Your task to perform on an android device: change notification settings in the gmail app Image 0: 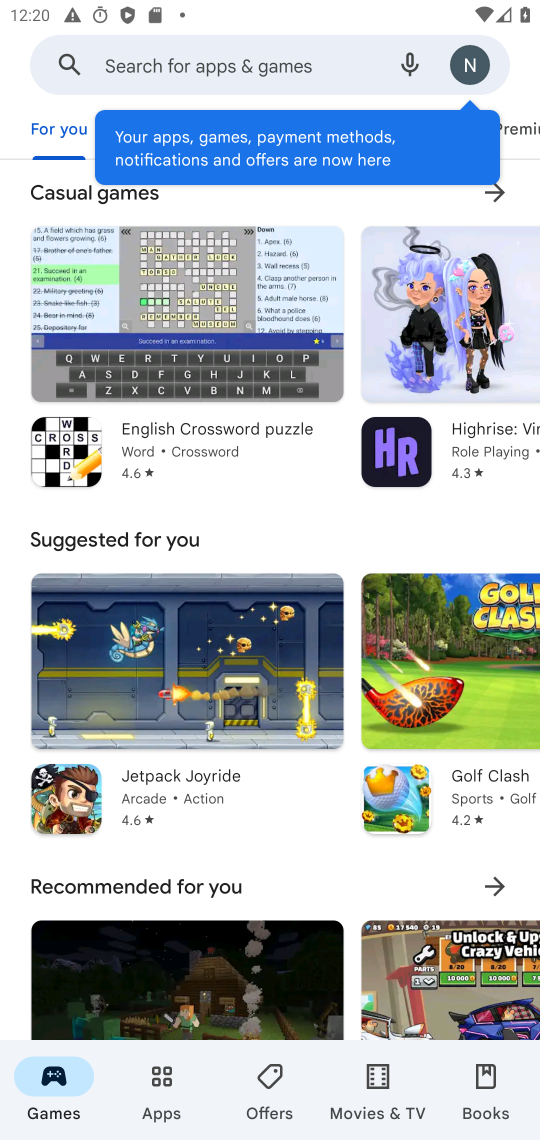
Step 0: press home button
Your task to perform on an android device: change notification settings in the gmail app Image 1: 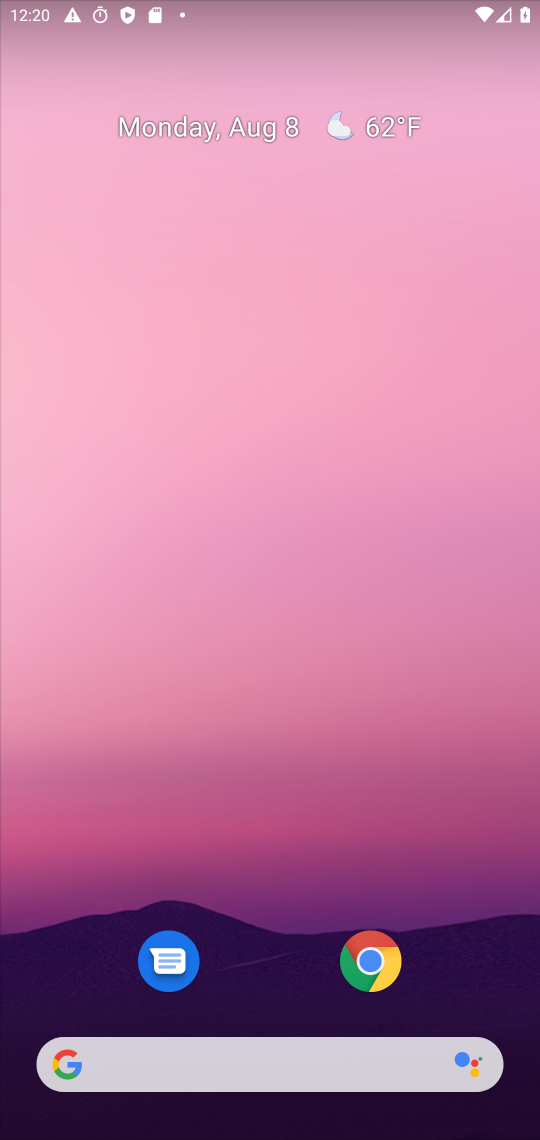
Step 1: drag from (337, 1051) to (107, 50)
Your task to perform on an android device: change notification settings in the gmail app Image 2: 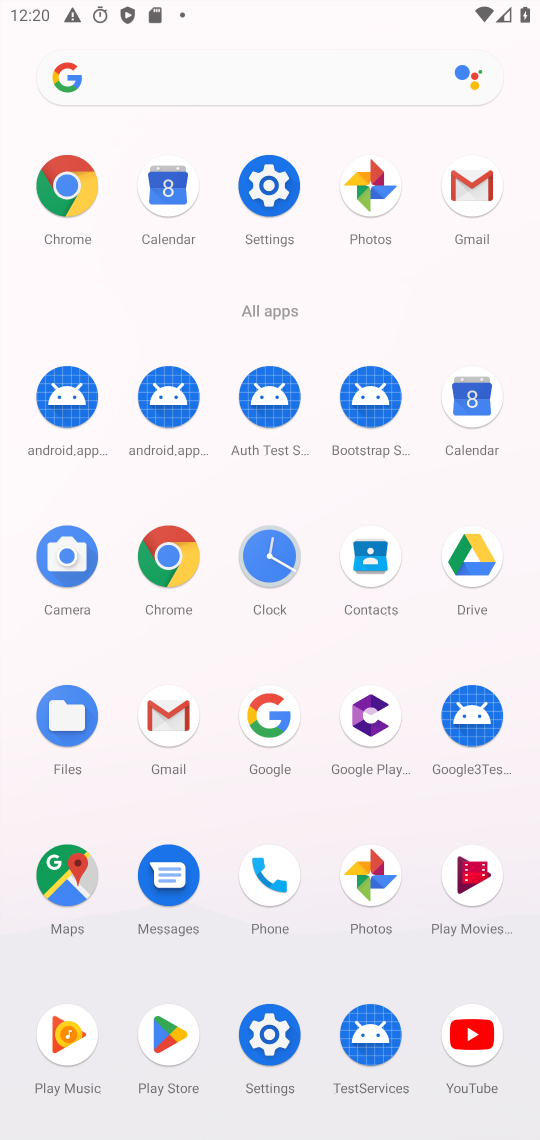
Step 2: click (175, 713)
Your task to perform on an android device: change notification settings in the gmail app Image 3: 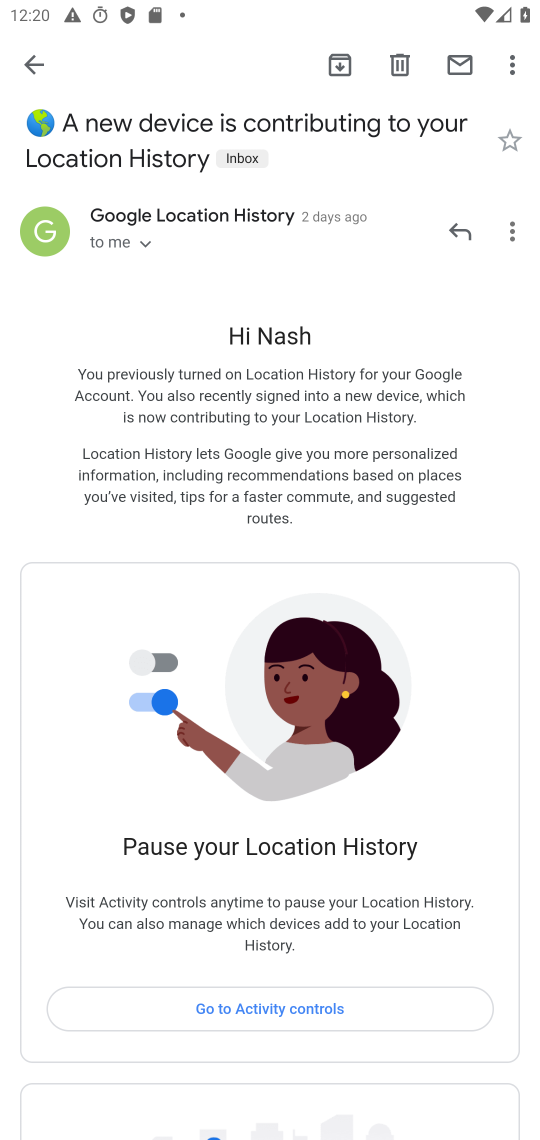
Step 3: press back button
Your task to perform on an android device: change notification settings in the gmail app Image 4: 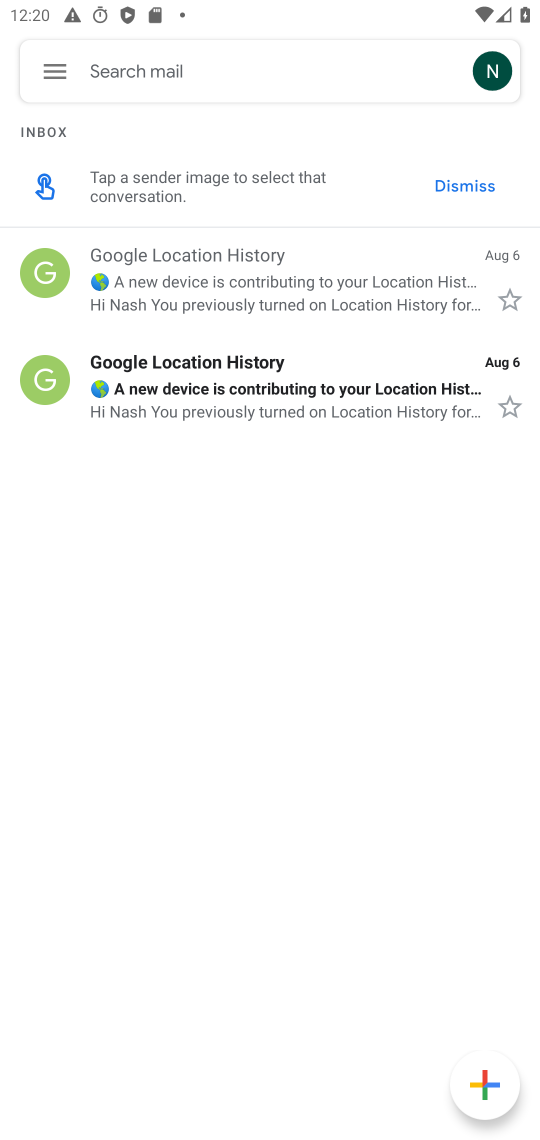
Step 4: click (67, 62)
Your task to perform on an android device: change notification settings in the gmail app Image 5: 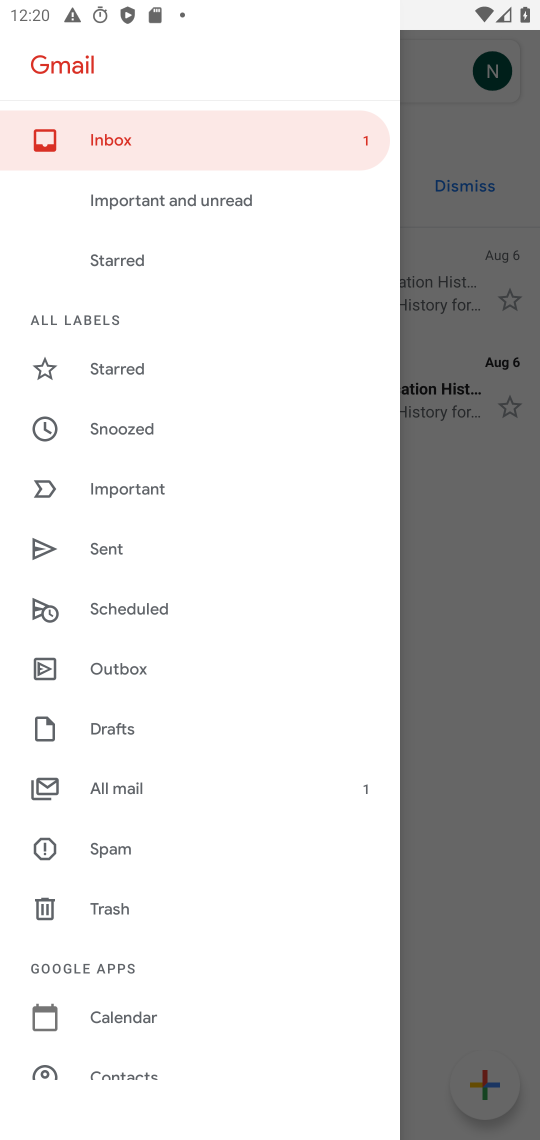
Step 5: drag from (303, 1062) to (204, 221)
Your task to perform on an android device: change notification settings in the gmail app Image 6: 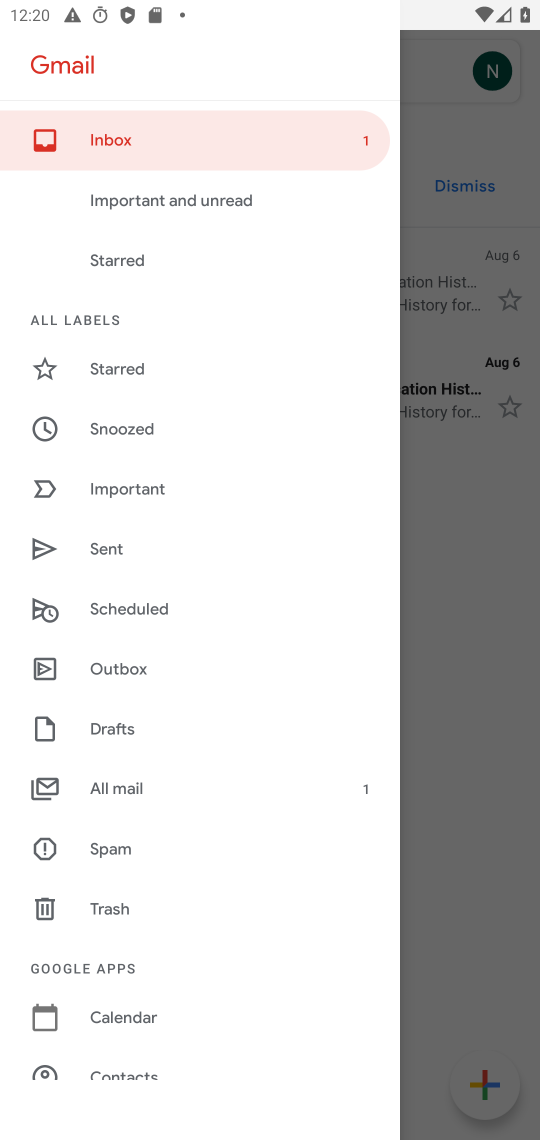
Step 6: drag from (288, 1074) to (205, 88)
Your task to perform on an android device: change notification settings in the gmail app Image 7: 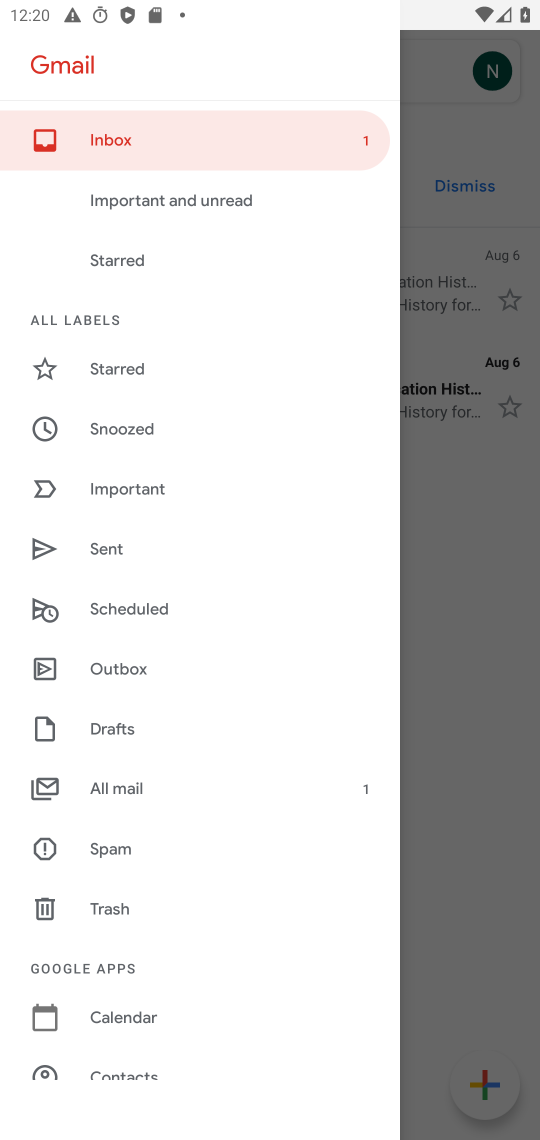
Step 7: drag from (279, 973) to (212, 281)
Your task to perform on an android device: change notification settings in the gmail app Image 8: 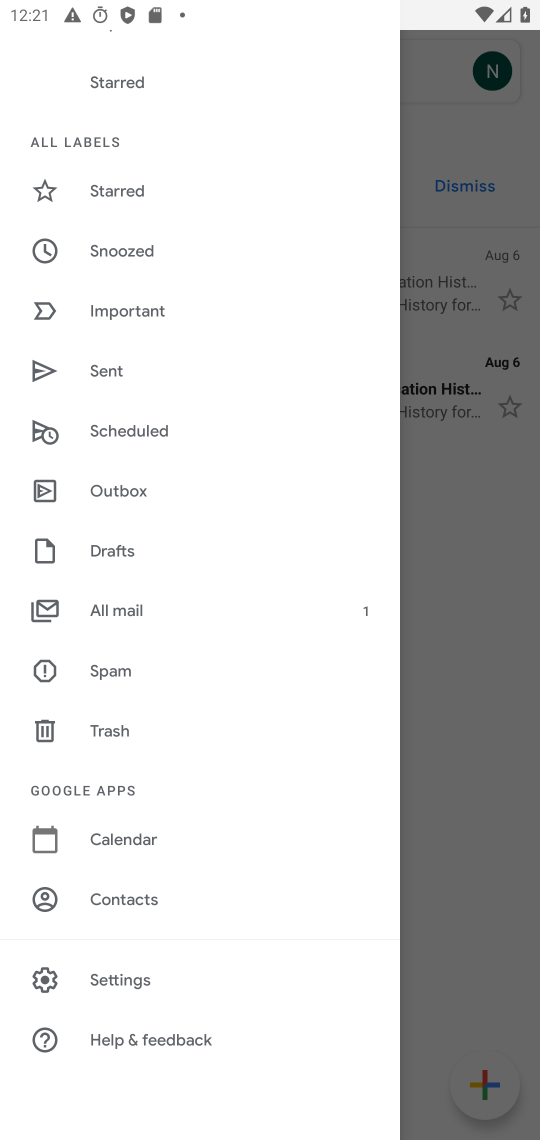
Step 8: click (111, 980)
Your task to perform on an android device: change notification settings in the gmail app Image 9: 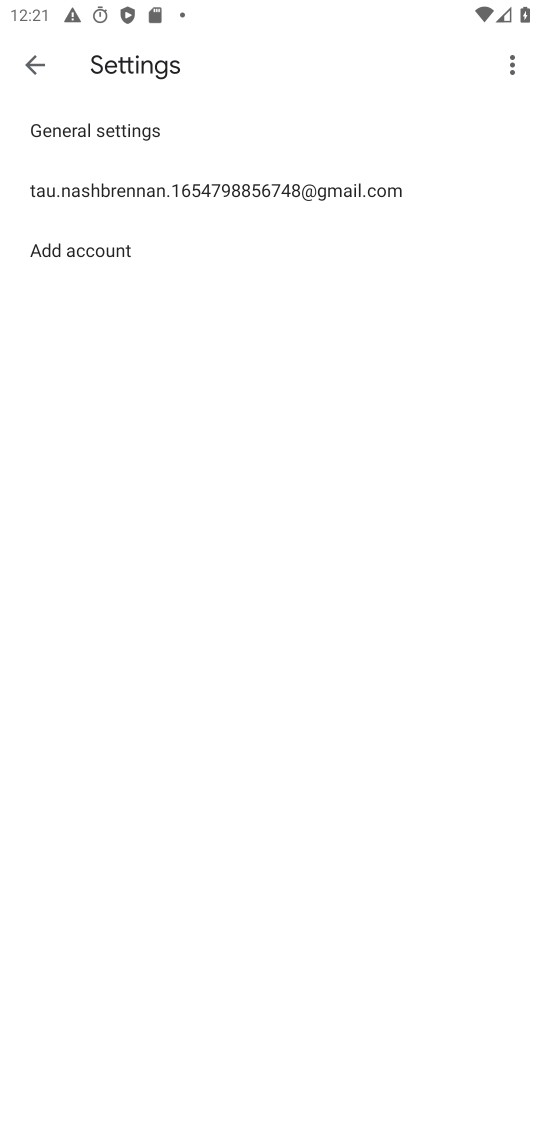
Step 9: click (156, 204)
Your task to perform on an android device: change notification settings in the gmail app Image 10: 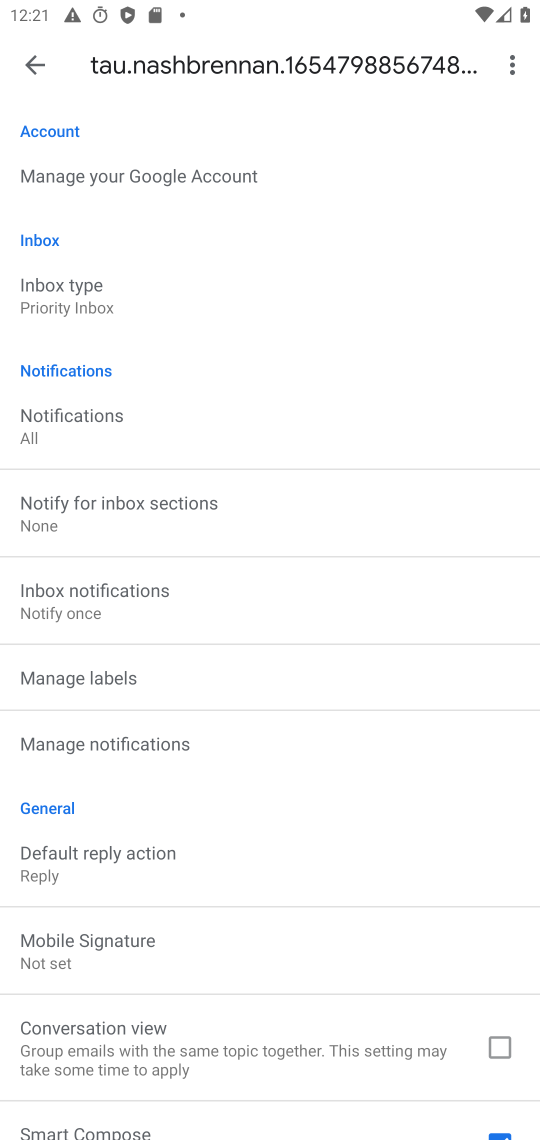
Step 10: click (78, 736)
Your task to perform on an android device: change notification settings in the gmail app Image 11: 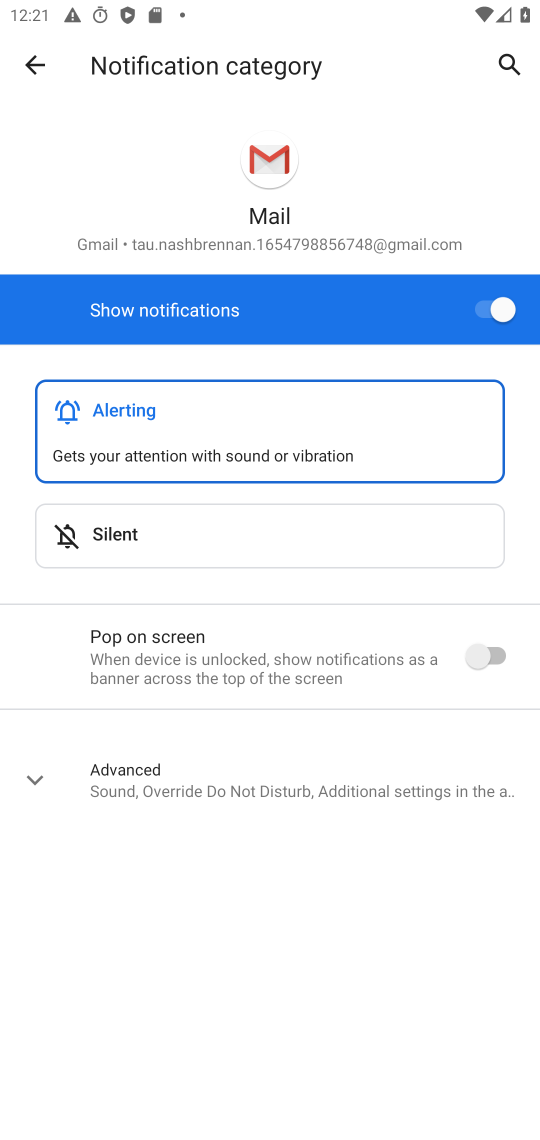
Step 11: click (480, 307)
Your task to perform on an android device: change notification settings in the gmail app Image 12: 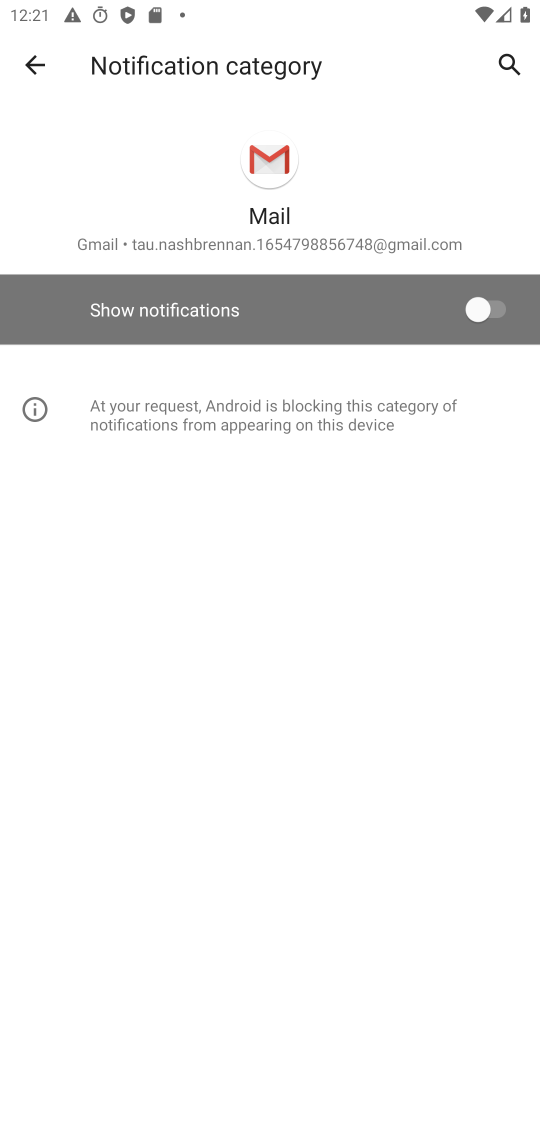
Step 12: task complete